Your task to perform on an android device: open wifi settings Image 0: 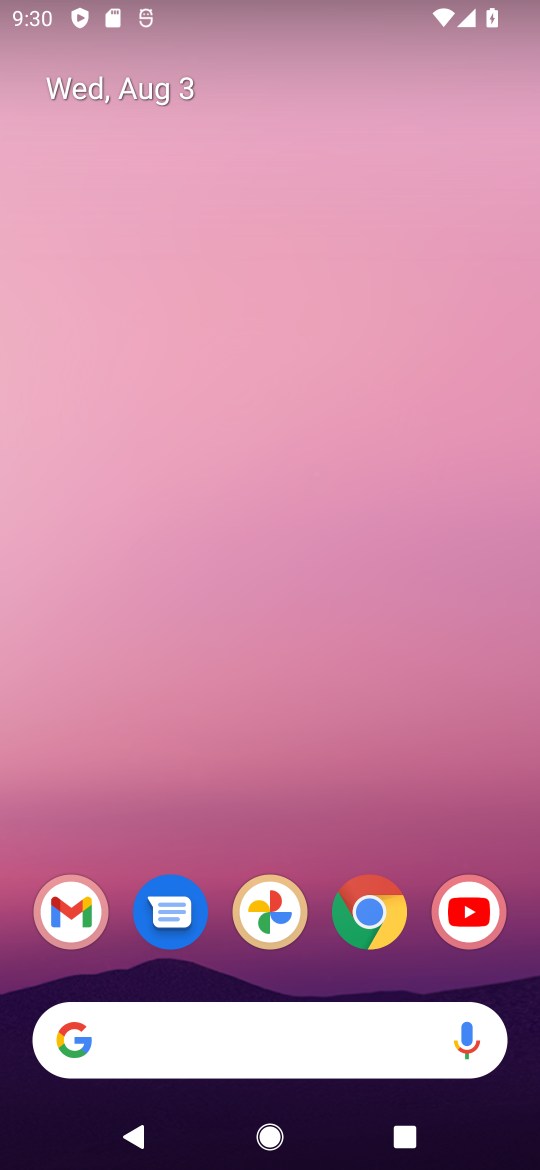
Step 0: drag from (348, 848) to (217, 33)
Your task to perform on an android device: open wifi settings Image 1: 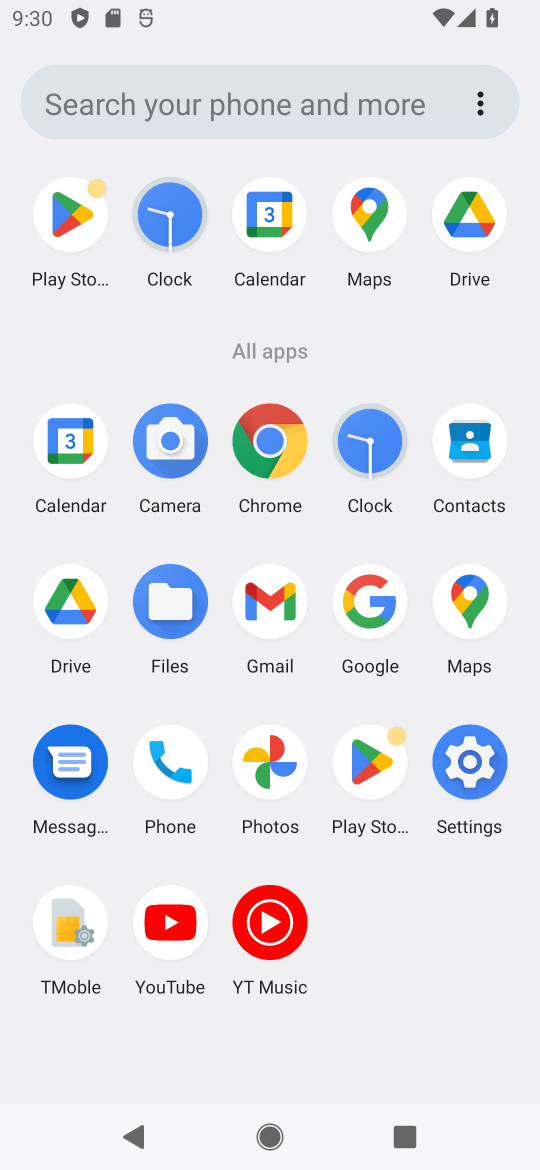
Step 1: click (495, 768)
Your task to perform on an android device: open wifi settings Image 2: 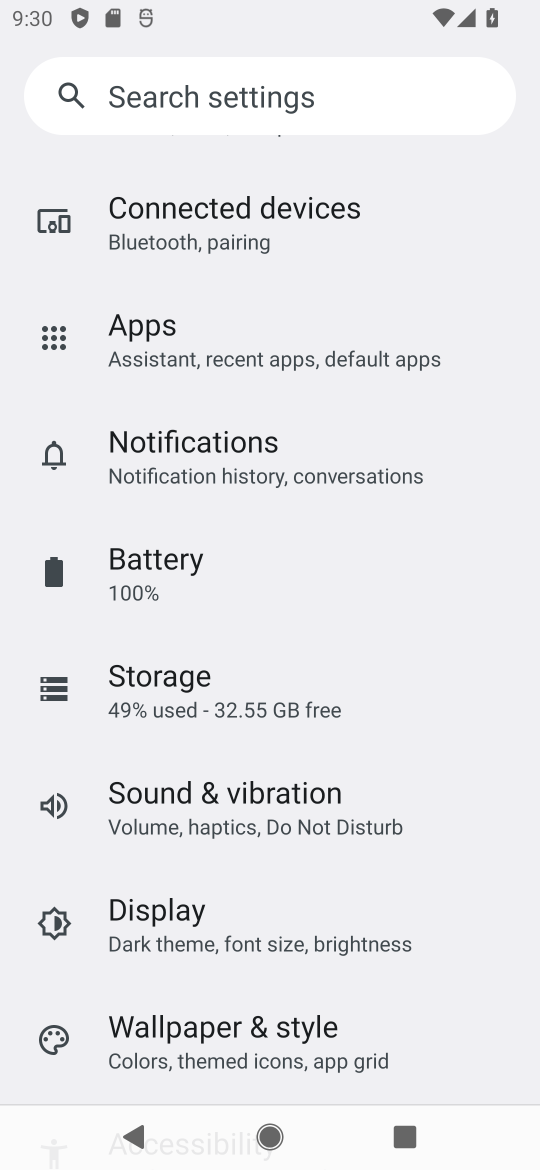
Step 2: drag from (232, 384) to (231, 959)
Your task to perform on an android device: open wifi settings Image 3: 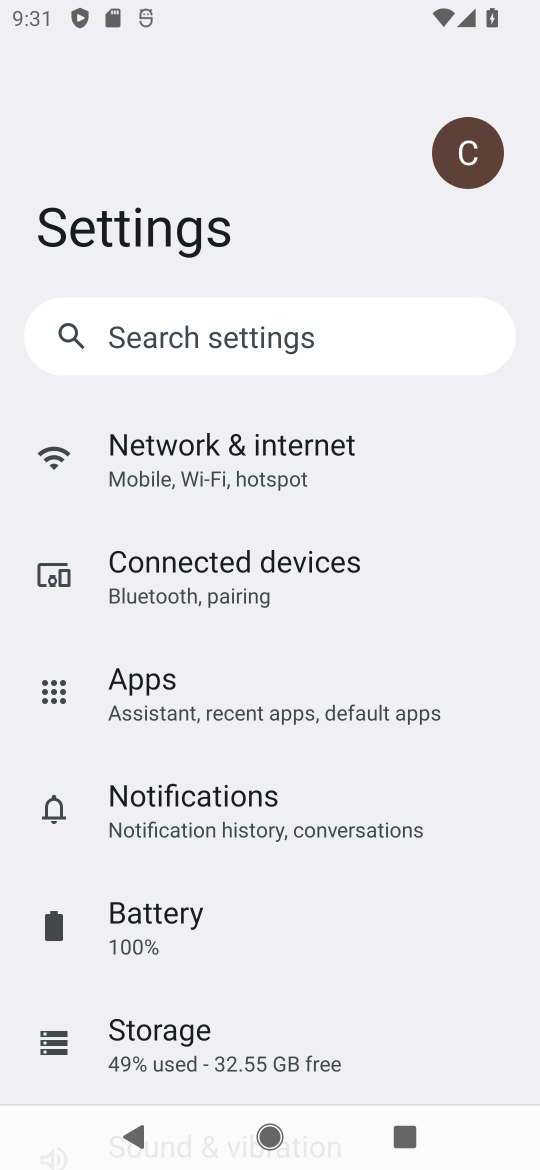
Step 3: click (165, 461)
Your task to perform on an android device: open wifi settings Image 4: 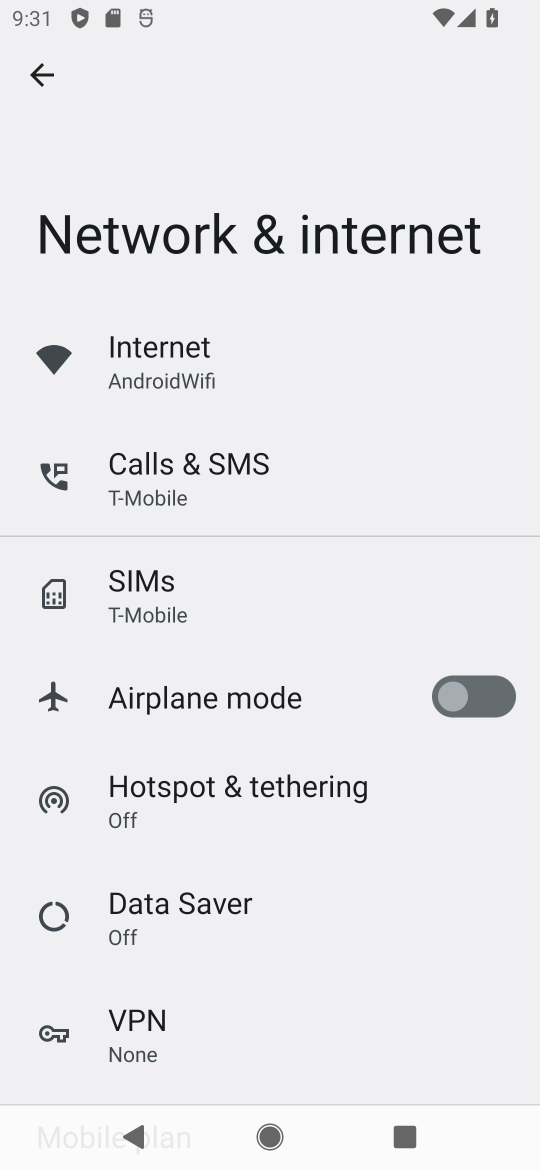
Step 4: drag from (205, 414) to (319, 856)
Your task to perform on an android device: open wifi settings Image 5: 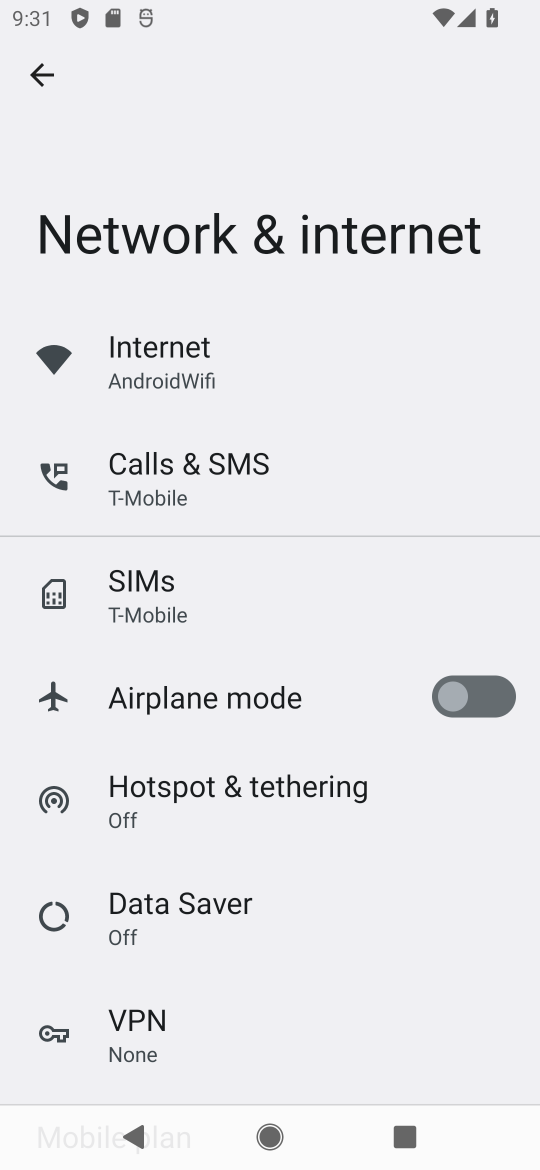
Step 5: click (147, 400)
Your task to perform on an android device: open wifi settings Image 6: 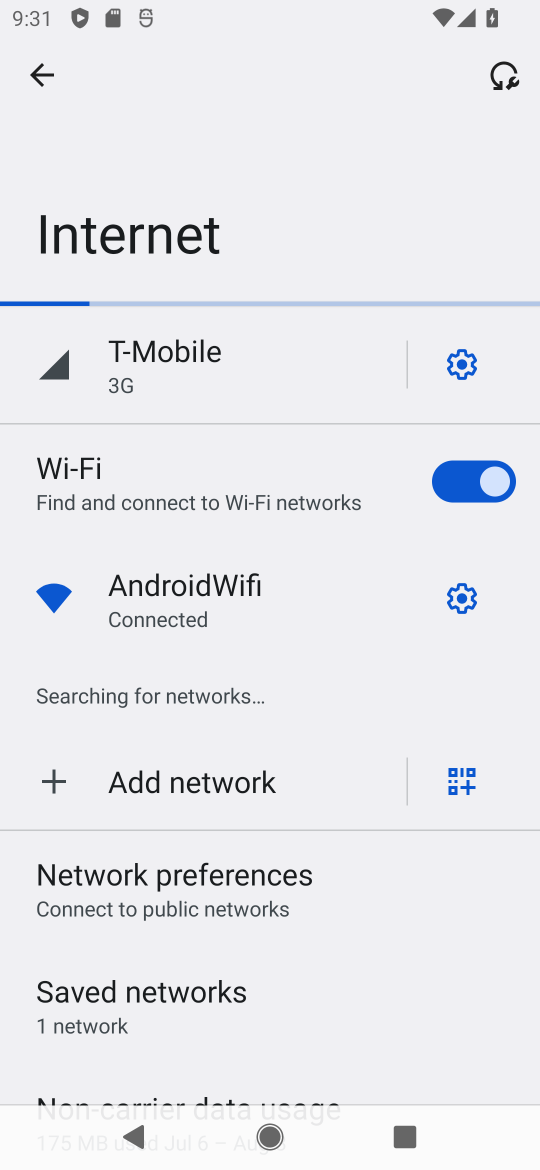
Step 6: click (303, 481)
Your task to perform on an android device: open wifi settings Image 7: 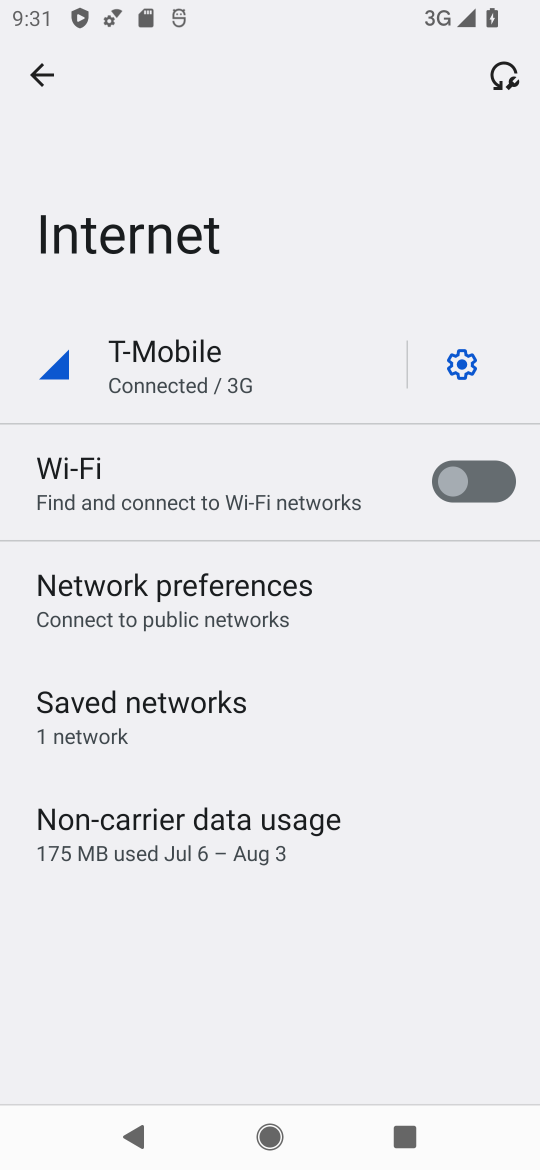
Step 7: click (303, 481)
Your task to perform on an android device: open wifi settings Image 8: 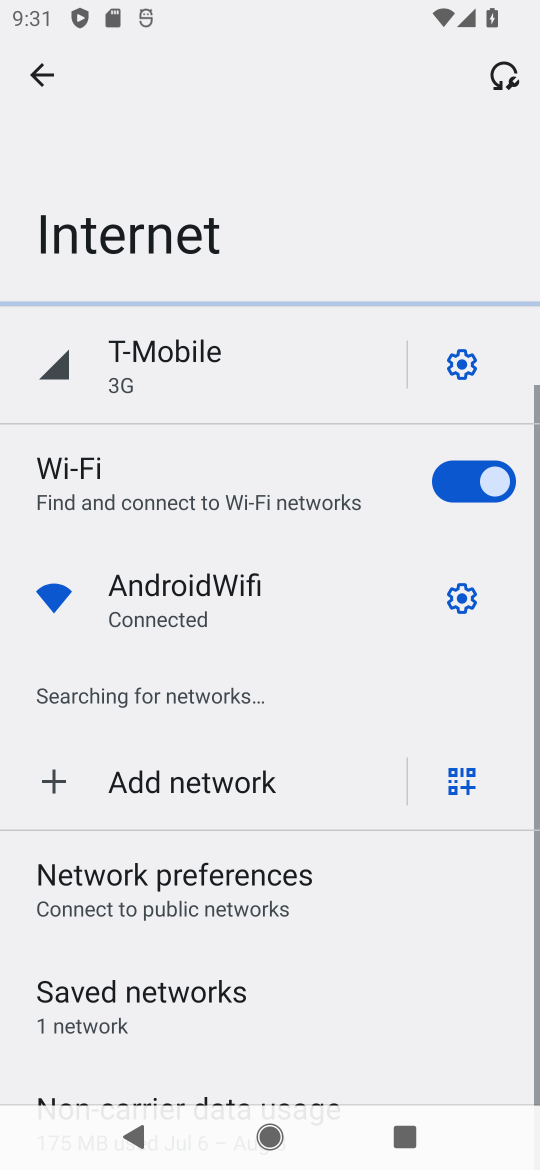
Step 8: click (49, 479)
Your task to perform on an android device: open wifi settings Image 9: 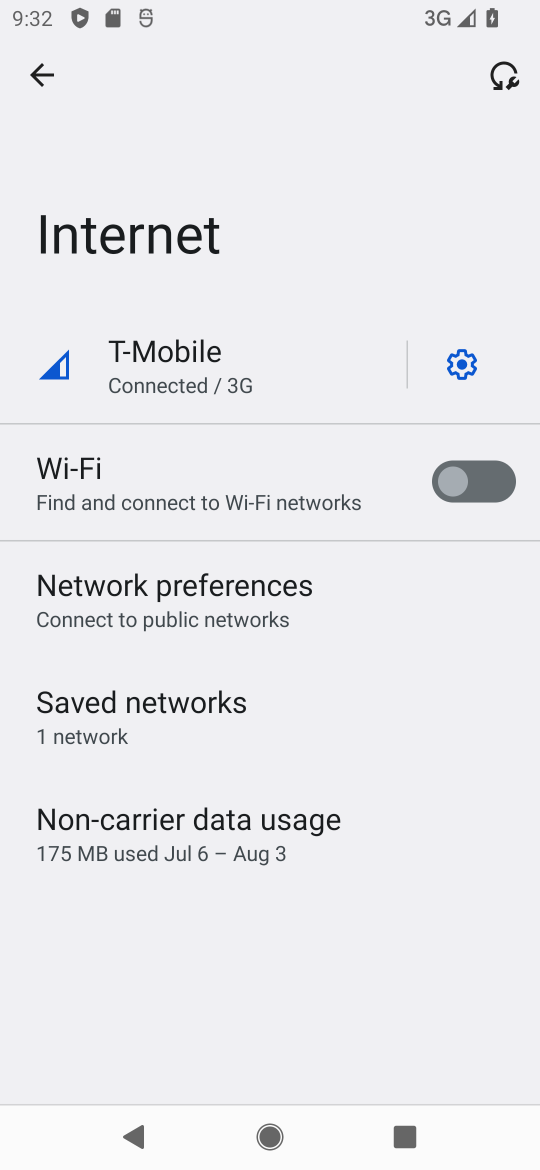
Step 9: task complete